Your task to perform on an android device: turn off smart reply in the gmail app Image 0: 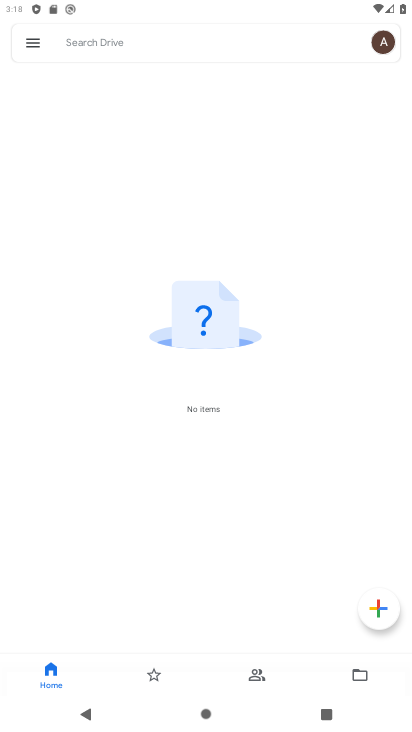
Step 0: press home button
Your task to perform on an android device: turn off smart reply in the gmail app Image 1: 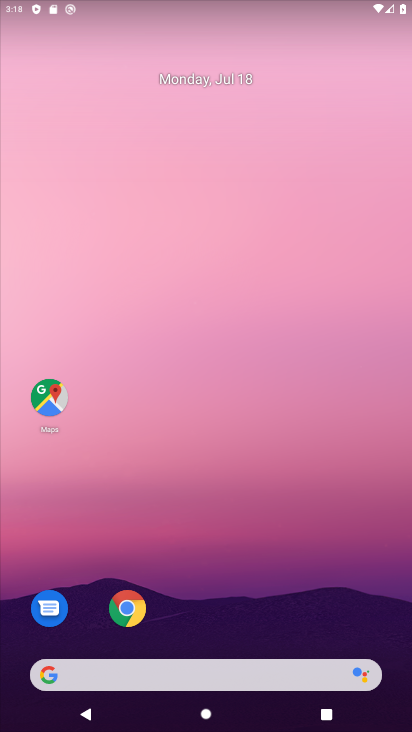
Step 1: drag from (229, 599) to (197, 157)
Your task to perform on an android device: turn off smart reply in the gmail app Image 2: 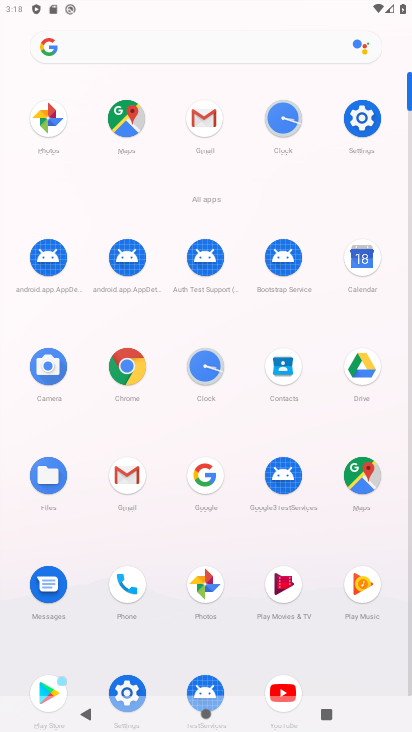
Step 2: click (204, 124)
Your task to perform on an android device: turn off smart reply in the gmail app Image 3: 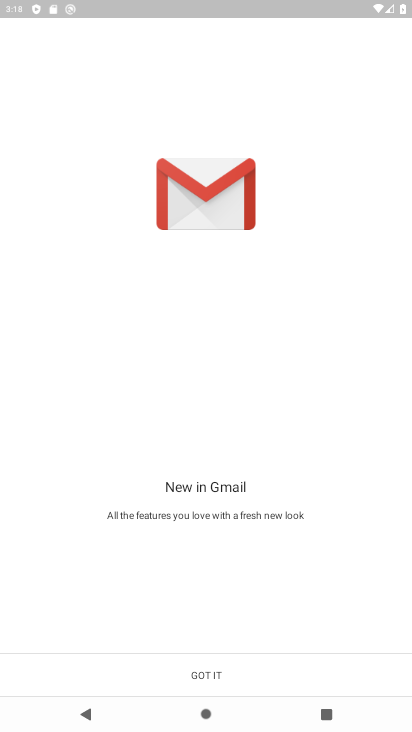
Step 3: click (205, 674)
Your task to perform on an android device: turn off smart reply in the gmail app Image 4: 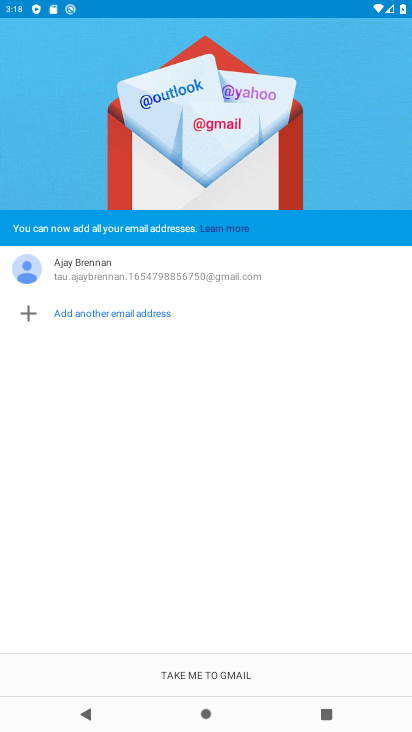
Step 4: click (219, 676)
Your task to perform on an android device: turn off smart reply in the gmail app Image 5: 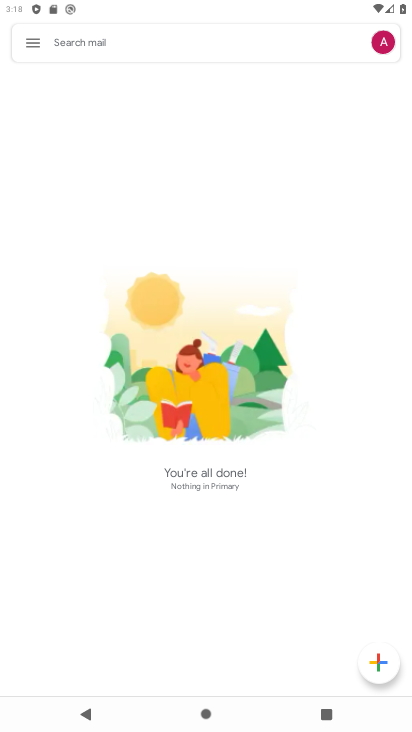
Step 5: click (33, 45)
Your task to perform on an android device: turn off smart reply in the gmail app Image 6: 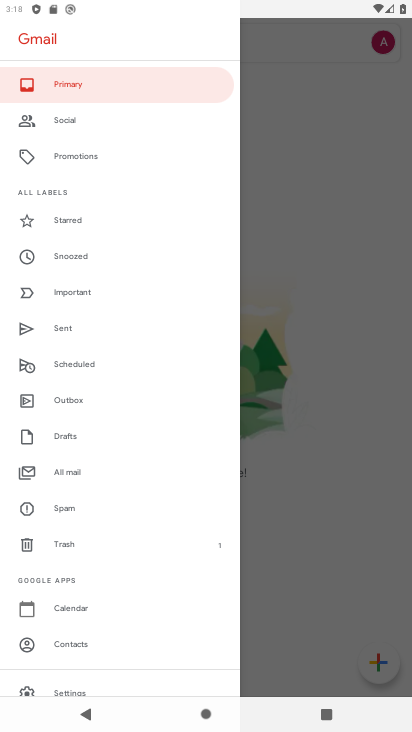
Step 6: click (69, 691)
Your task to perform on an android device: turn off smart reply in the gmail app Image 7: 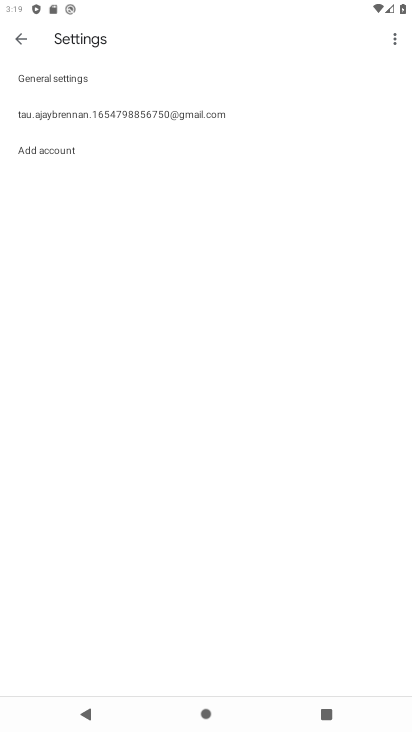
Step 7: click (49, 78)
Your task to perform on an android device: turn off smart reply in the gmail app Image 8: 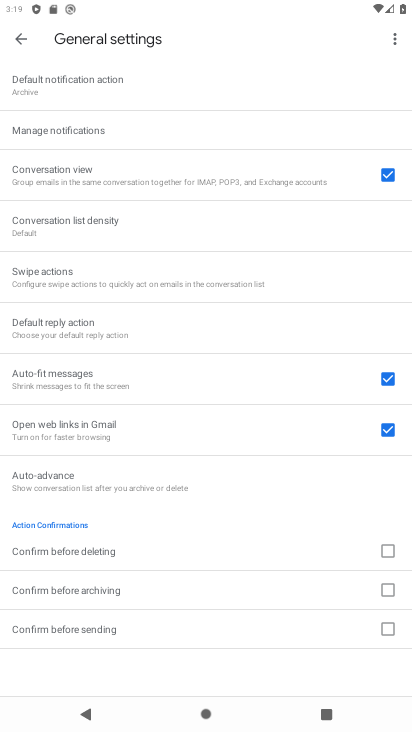
Step 8: task complete